Your task to perform on an android device: toggle show notifications on the lock screen Image 0: 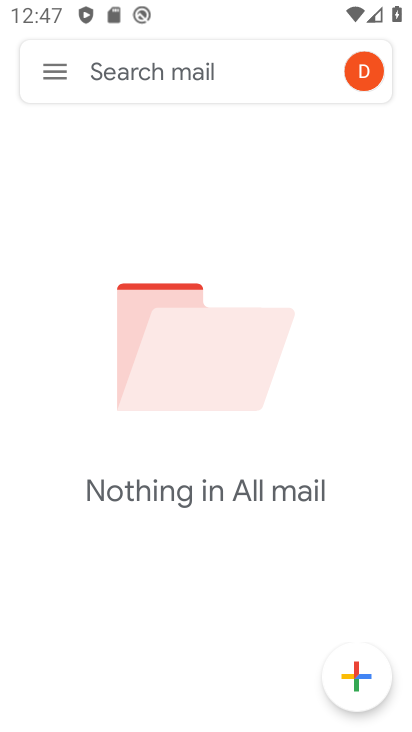
Step 0: press back button
Your task to perform on an android device: toggle show notifications on the lock screen Image 1: 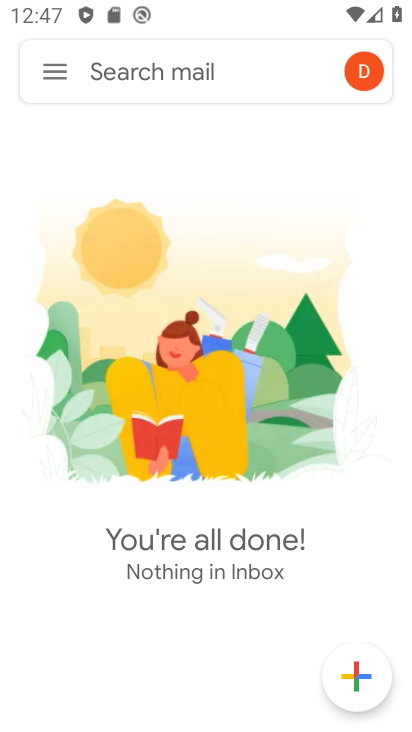
Step 1: press back button
Your task to perform on an android device: toggle show notifications on the lock screen Image 2: 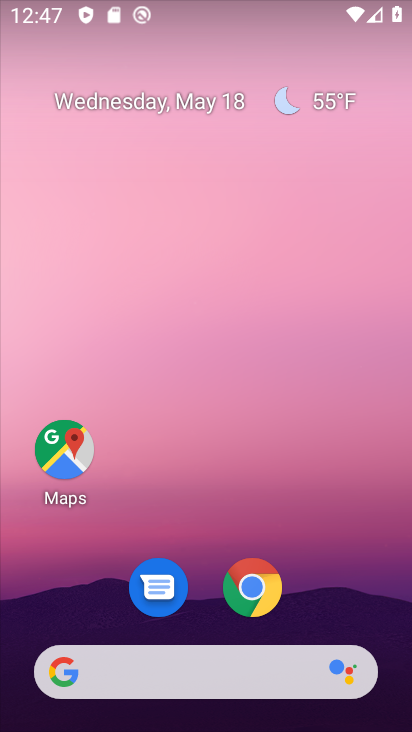
Step 2: drag from (204, 620) to (260, 95)
Your task to perform on an android device: toggle show notifications on the lock screen Image 3: 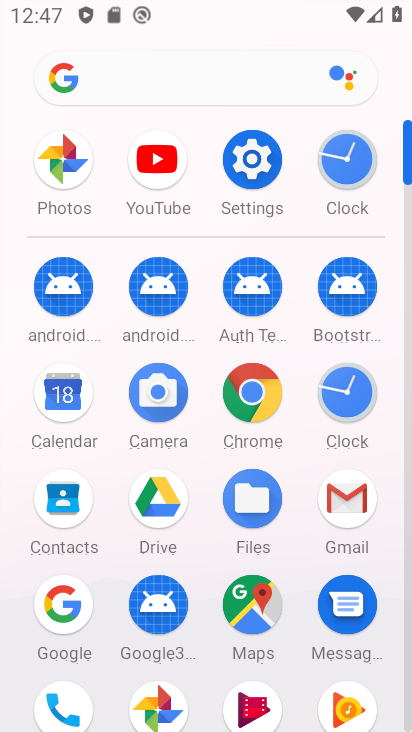
Step 3: click (252, 163)
Your task to perform on an android device: toggle show notifications on the lock screen Image 4: 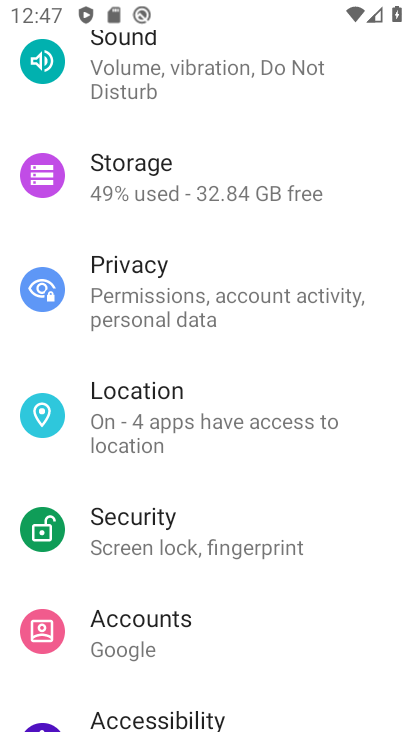
Step 4: drag from (221, 166) to (191, 648)
Your task to perform on an android device: toggle show notifications on the lock screen Image 5: 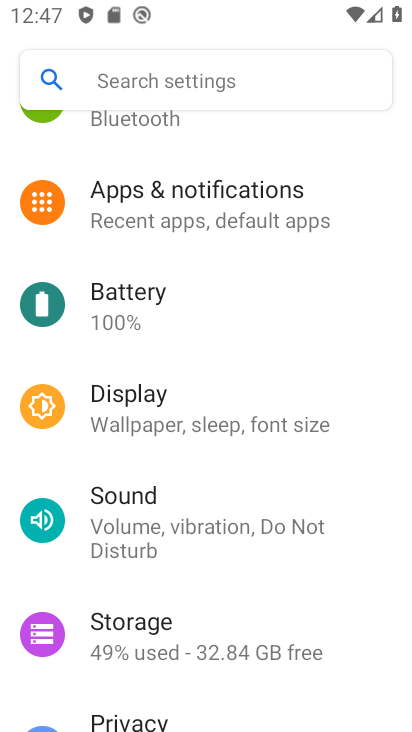
Step 5: click (236, 202)
Your task to perform on an android device: toggle show notifications on the lock screen Image 6: 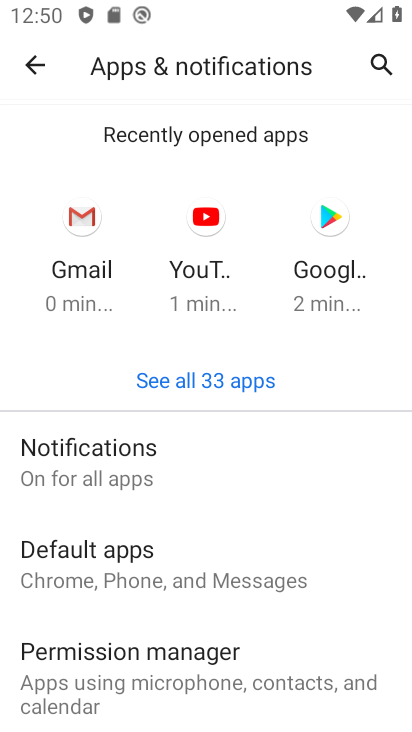
Step 6: click (117, 494)
Your task to perform on an android device: toggle show notifications on the lock screen Image 7: 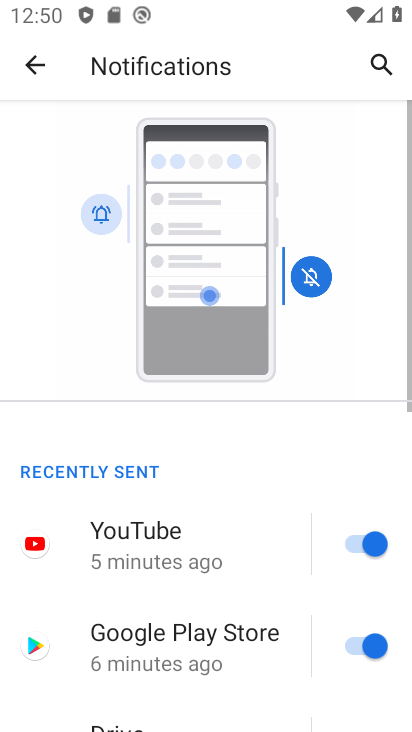
Step 7: drag from (151, 583) to (307, 37)
Your task to perform on an android device: toggle show notifications on the lock screen Image 8: 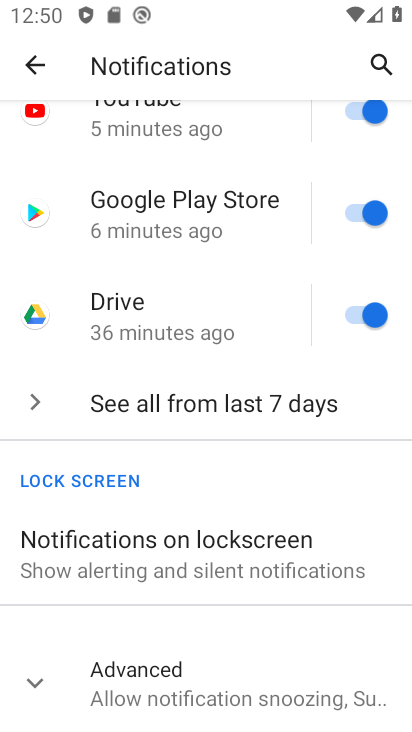
Step 8: click (165, 570)
Your task to perform on an android device: toggle show notifications on the lock screen Image 9: 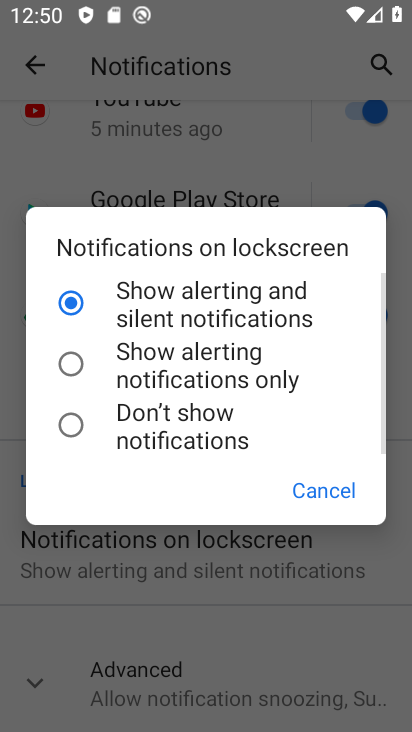
Step 9: click (76, 316)
Your task to perform on an android device: toggle show notifications on the lock screen Image 10: 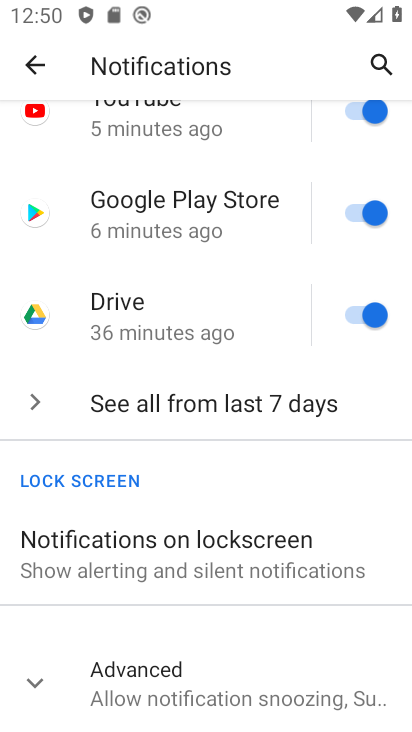
Step 10: task complete